Your task to perform on an android device: Search for vegetarian restaurants on Maps Image 0: 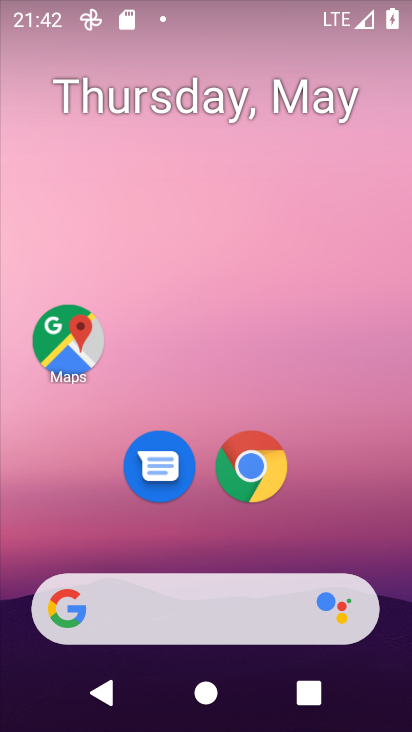
Step 0: click (46, 351)
Your task to perform on an android device: Search for vegetarian restaurants on Maps Image 1: 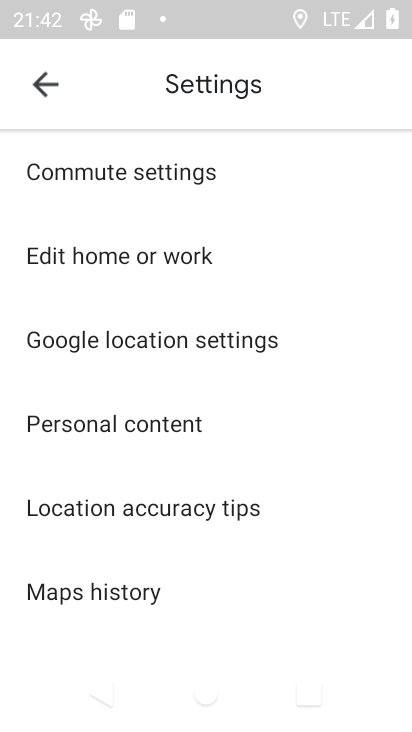
Step 1: click (62, 84)
Your task to perform on an android device: Search for vegetarian restaurants on Maps Image 2: 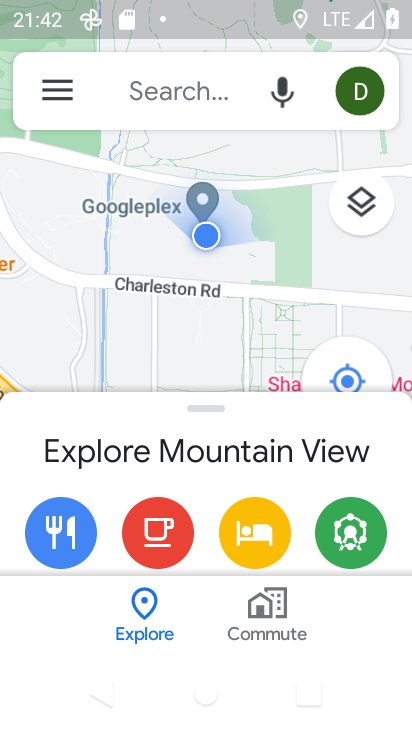
Step 2: click (145, 81)
Your task to perform on an android device: Search for vegetarian restaurants on Maps Image 3: 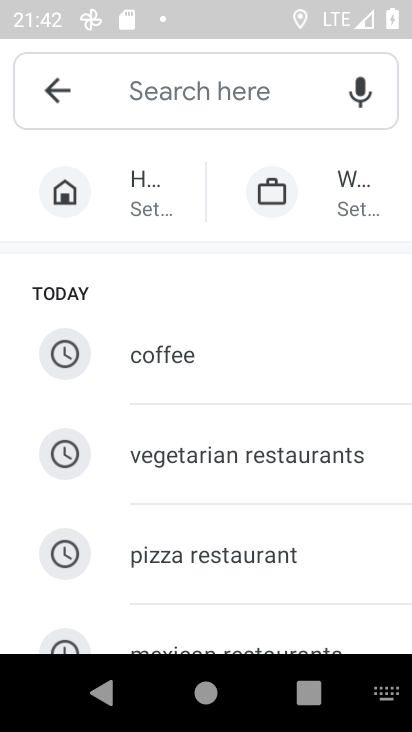
Step 3: click (321, 476)
Your task to perform on an android device: Search for vegetarian restaurants on Maps Image 4: 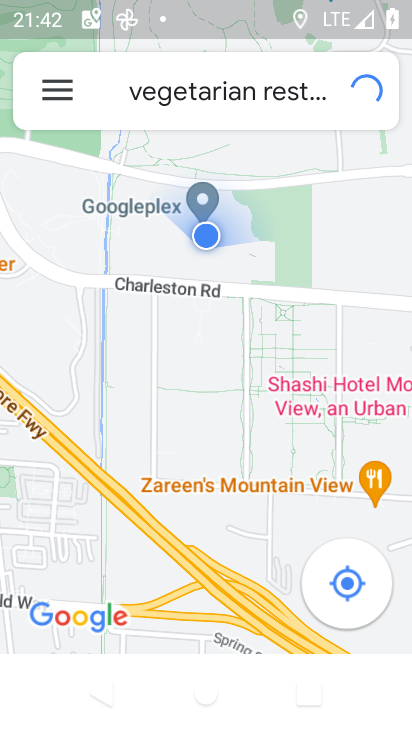
Step 4: task complete